Your task to perform on an android device: check data usage Image 0: 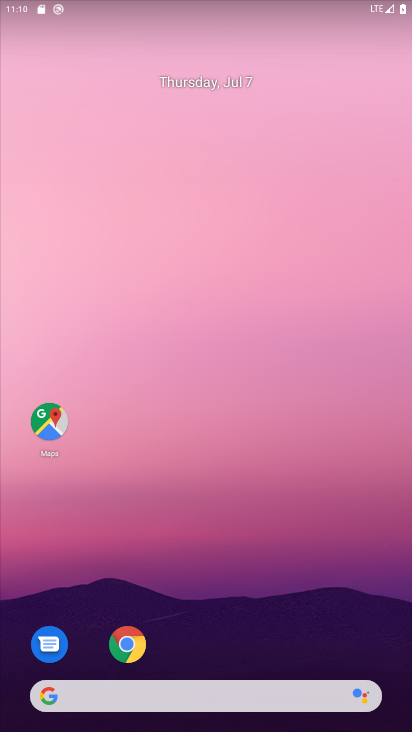
Step 0: drag from (28, 673) to (250, 34)
Your task to perform on an android device: check data usage Image 1: 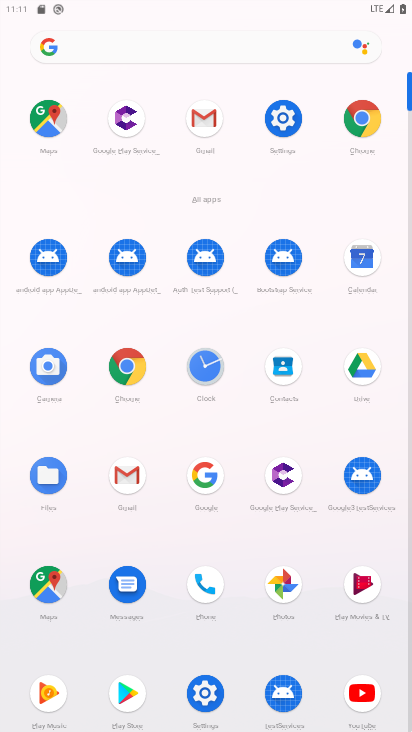
Step 1: click (206, 688)
Your task to perform on an android device: check data usage Image 2: 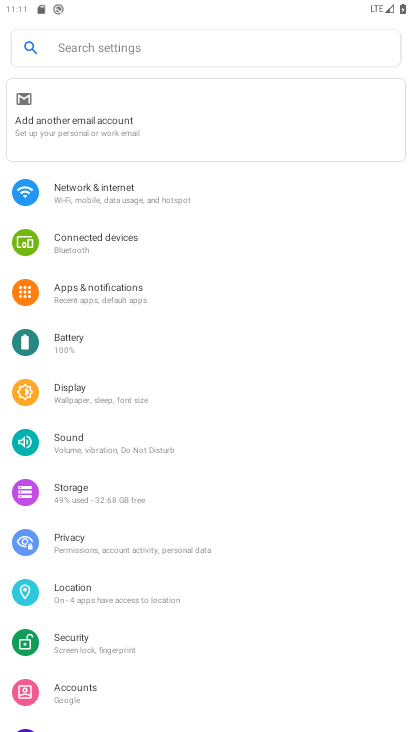
Step 2: click (71, 190)
Your task to perform on an android device: check data usage Image 3: 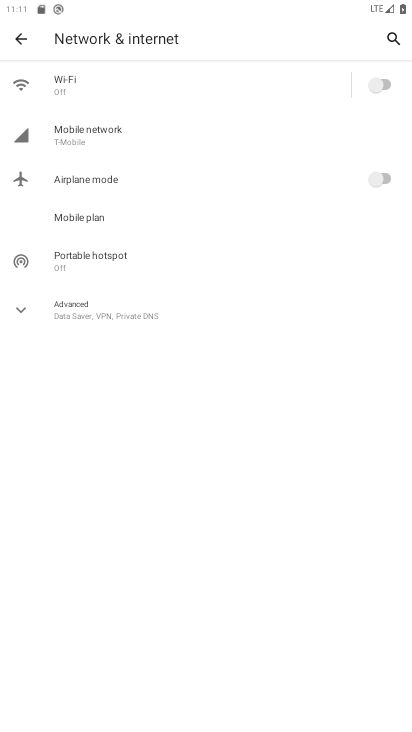
Step 3: click (92, 305)
Your task to perform on an android device: check data usage Image 4: 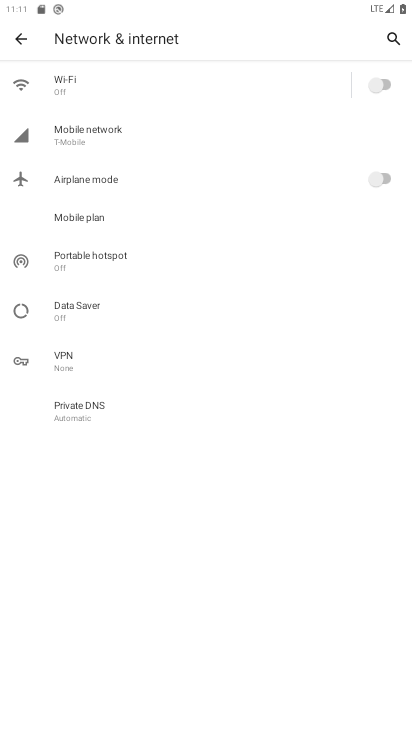
Step 4: click (22, 34)
Your task to perform on an android device: check data usage Image 5: 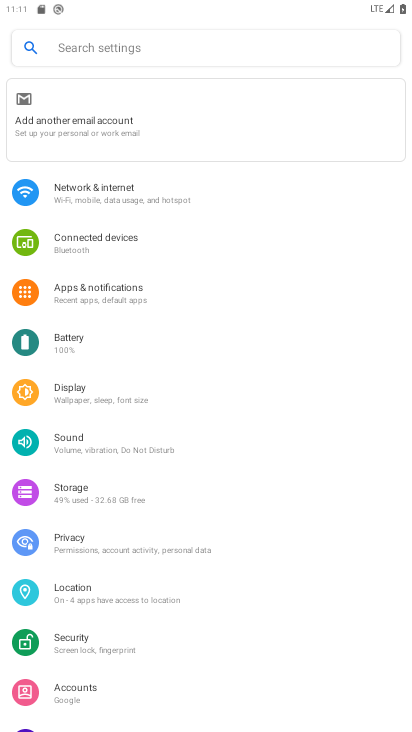
Step 5: click (79, 180)
Your task to perform on an android device: check data usage Image 6: 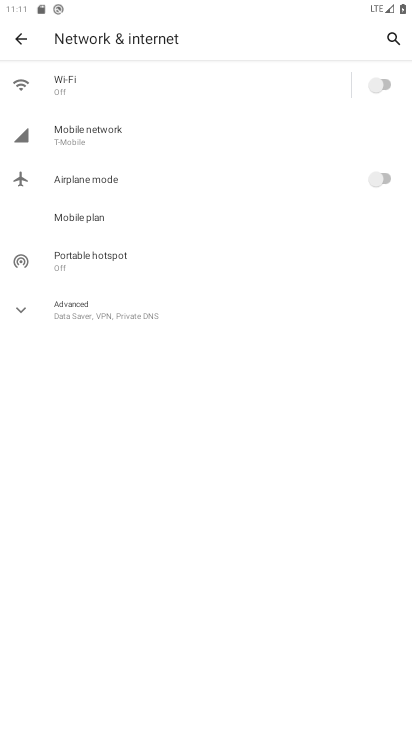
Step 6: click (96, 133)
Your task to perform on an android device: check data usage Image 7: 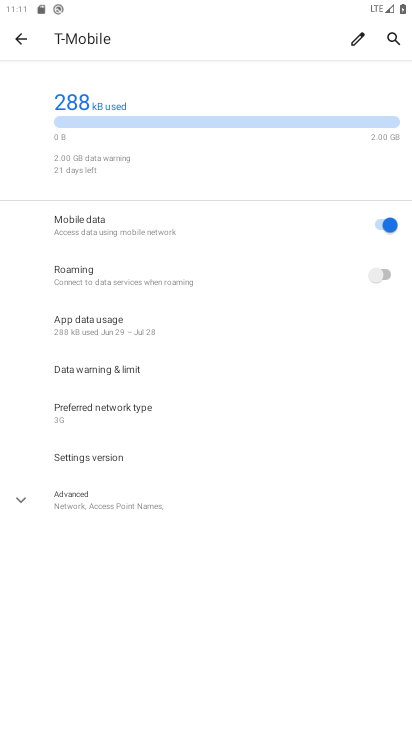
Step 7: task complete